Your task to perform on an android device: Go to eBay Image 0: 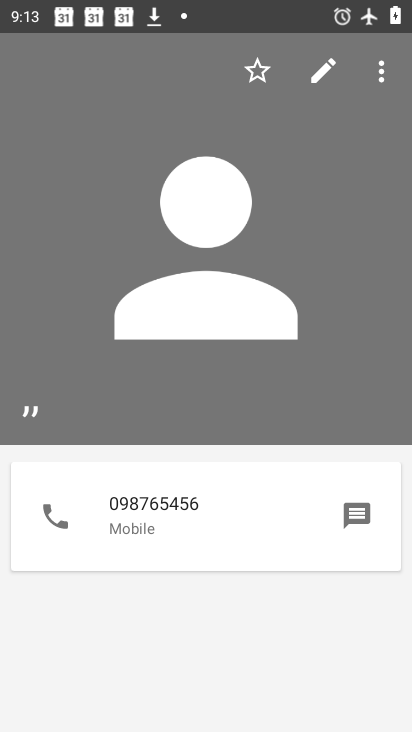
Step 0: press home button
Your task to perform on an android device: Go to eBay Image 1: 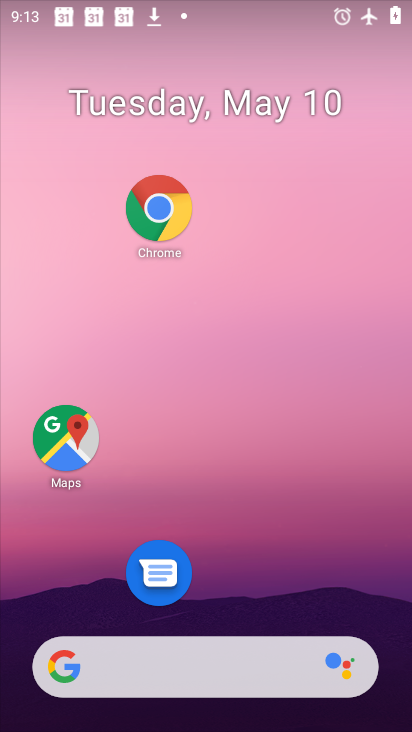
Step 1: drag from (308, 692) to (310, 165)
Your task to perform on an android device: Go to eBay Image 2: 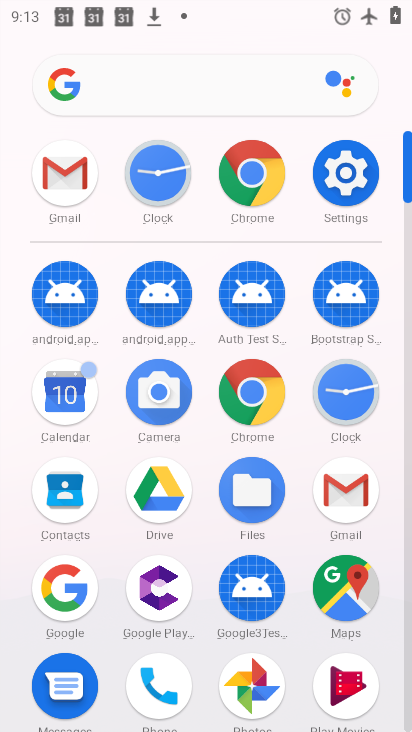
Step 2: click (263, 184)
Your task to perform on an android device: Go to eBay Image 3: 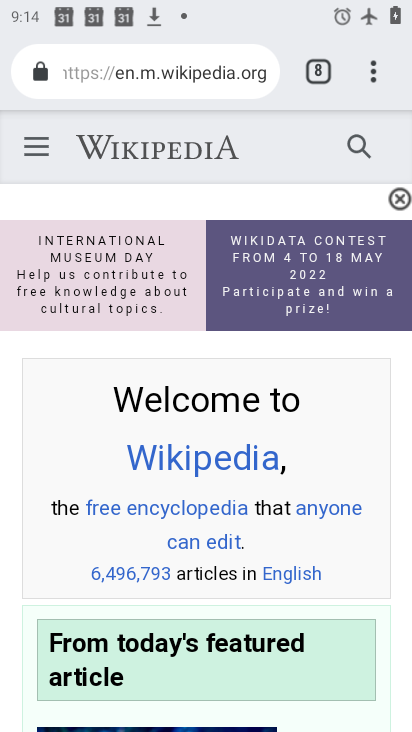
Step 3: click (306, 78)
Your task to perform on an android device: Go to eBay Image 4: 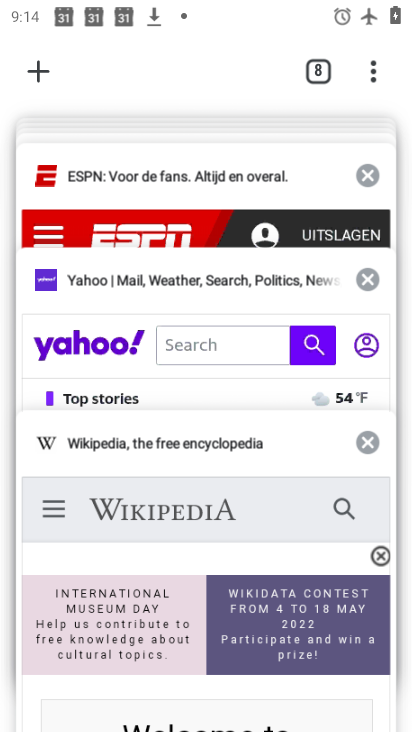
Step 4: click (28, 77)
Your task to perform on an android device: Go to eBay Image 5: 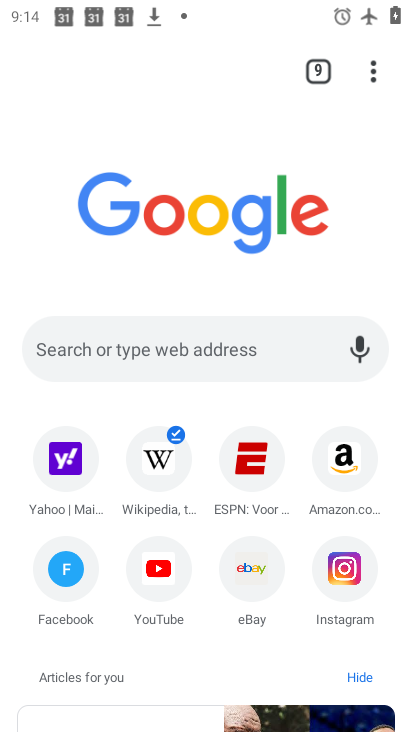
Step 5: click (243, 585)
Your task to perform on an android device: Go to eBay Image 6: 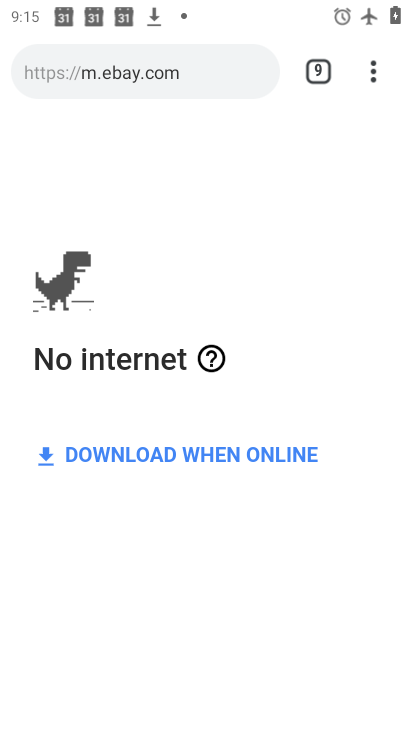
Step 6: press home button
Your task to perform on an android device: Go to eBay Image 7: 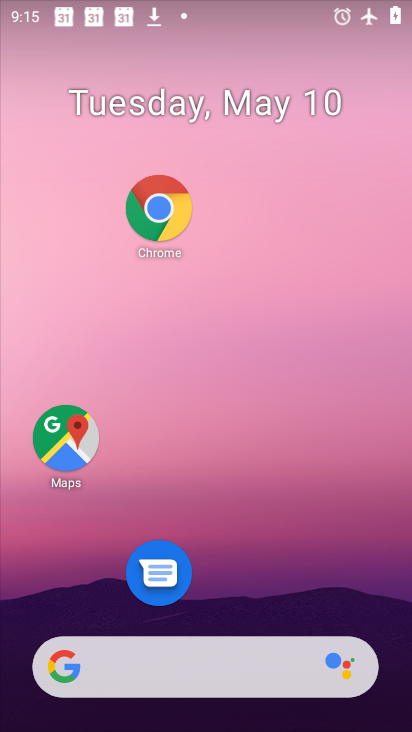
Step 7: drag from (292, 720) to (350, 254)
Your task to perform on an android device: Go to eBay Image 8: 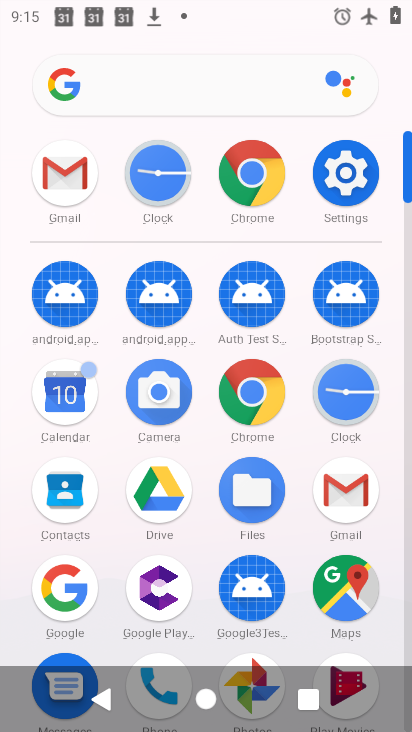
Step 8: click (351, 180)
Your task to perform on an android device: Go to eBay Image 9: 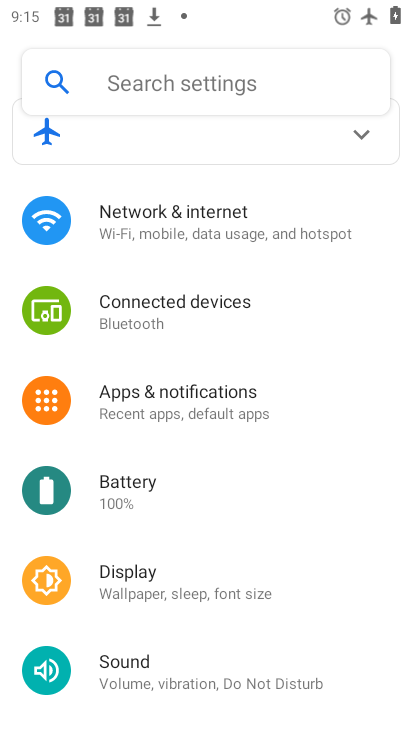
Step 9: click (366, 137)
Your task to perform on an android device: Go to eBay Image 10: 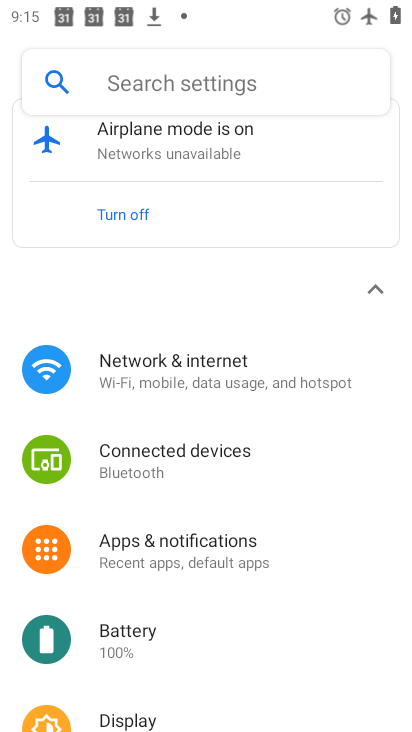
Step 10: click (146, 225)
Your task to perform on an android device: Go to eBay Image 11: 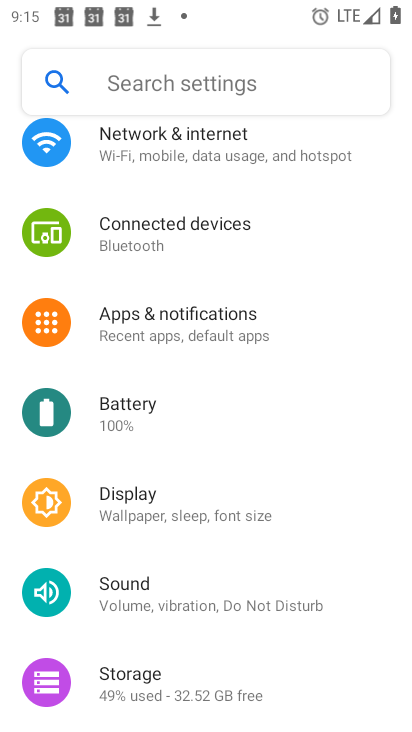
Step 11: press home button
Your task to perform on an android device: Go to eBay Image 12: 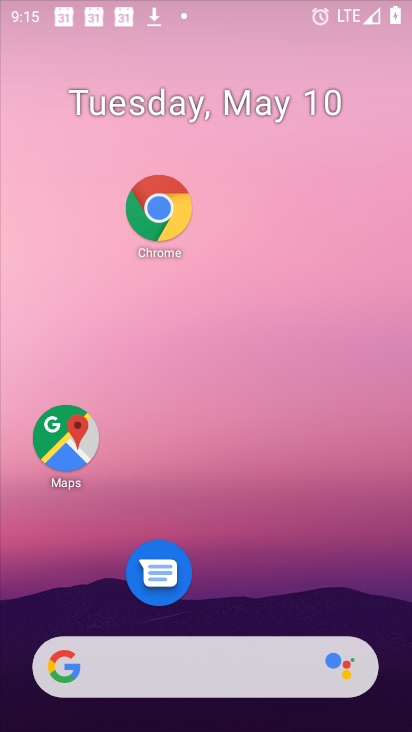
Step 12: drag from (242, 694) to (342, 256)
Your task to perform on an android device: Go to eBay Image 13: 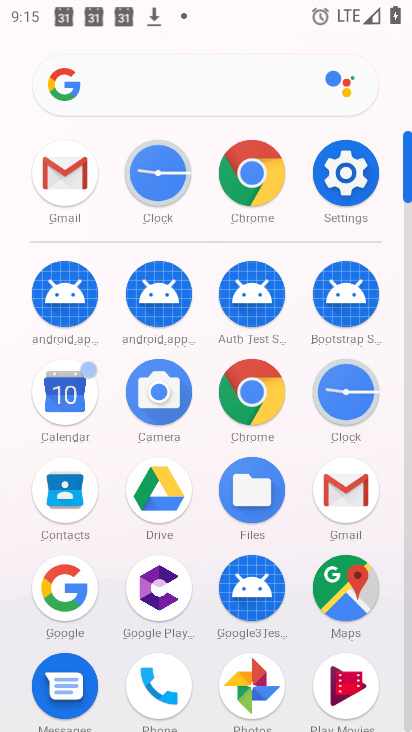
Step 13: click (252, 158)
Your task to perform on an android device: Go to eBay Image 14: 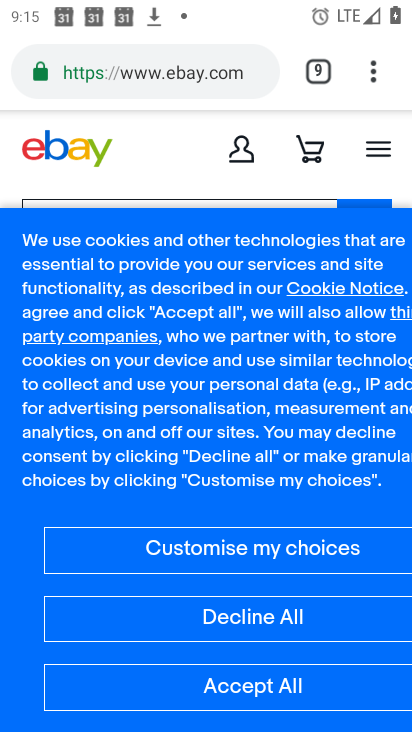
Step 14: click (321, 680)
Your task to perform on an android device: Go to eBay Image 15: 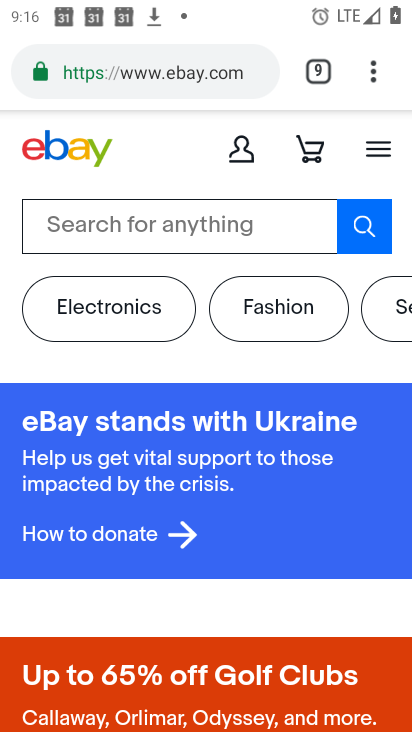
Step 15: task complete